Your task to perform on an android device: toggle airplane mode Image 0: 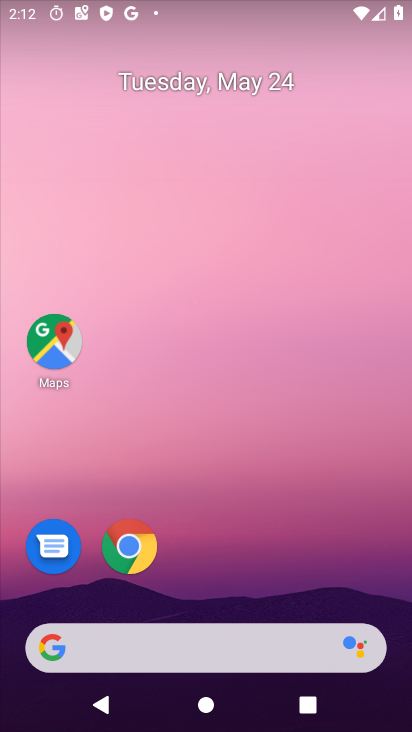
Step 0: drag from (221, 670) to (259, 81)
Your task to perform on an android device: toggle airplane mode Image 1: 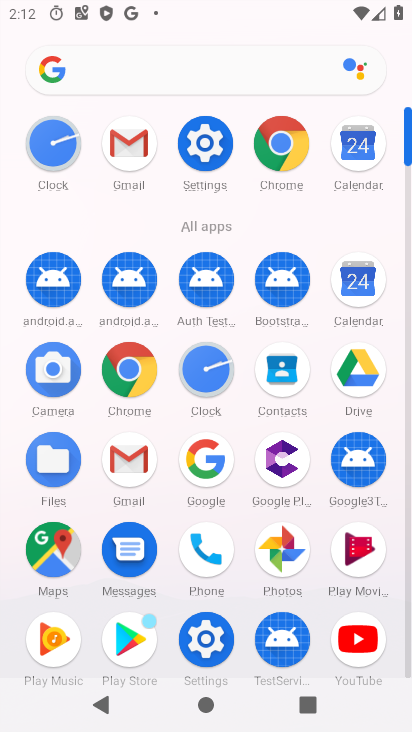
Step 1: click (186, 151)
Your task to perform on an android device: toggle airplane mode Image 2: 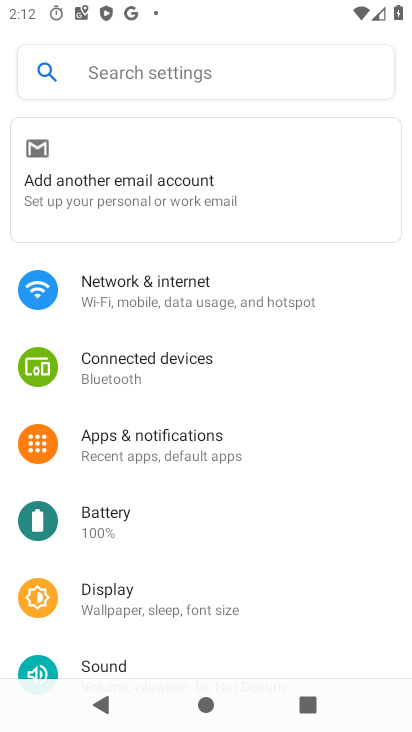
Step 2: click (159, 280)
Your task to perform on an android device: toggle airplane mode Image 3: 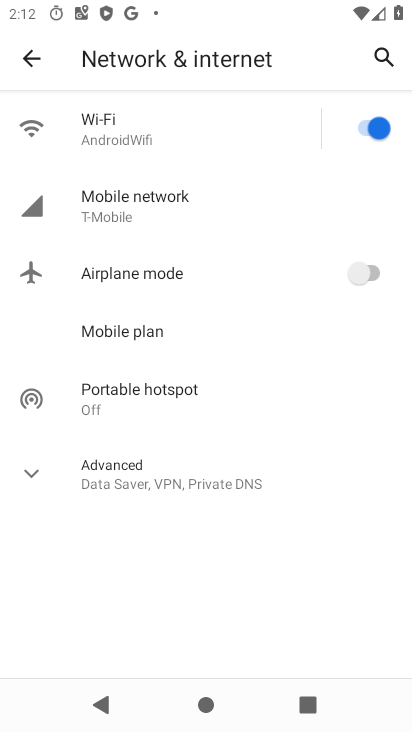
Step 3: click (366, 269)
Your task to perform on an android device: toggle airplane mode Image 4: 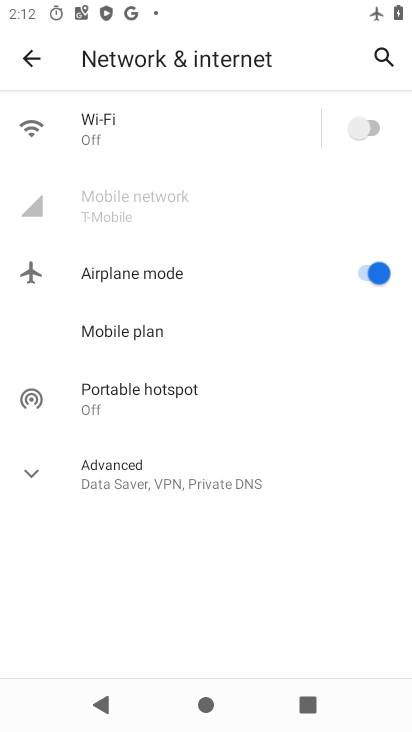
Step 4: task complete